Your task to perform on an android device: find photos in the google photos app Image 0: 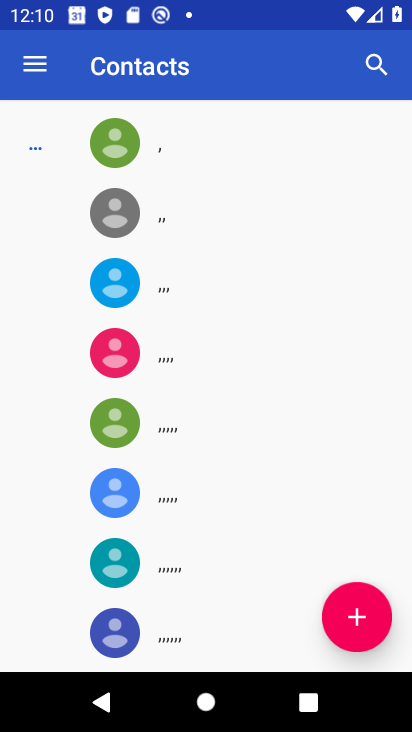
Step 0: press home button
Your task to perform on an android device: find photos in the google photos app Image 1: 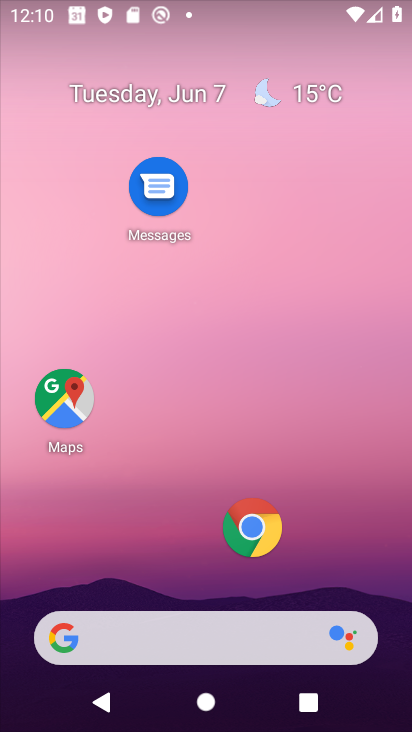
Step 1: drag from (205, 616) to (207, 227)
Your task to perform on an android device: find photos in the google photos app Image 2: 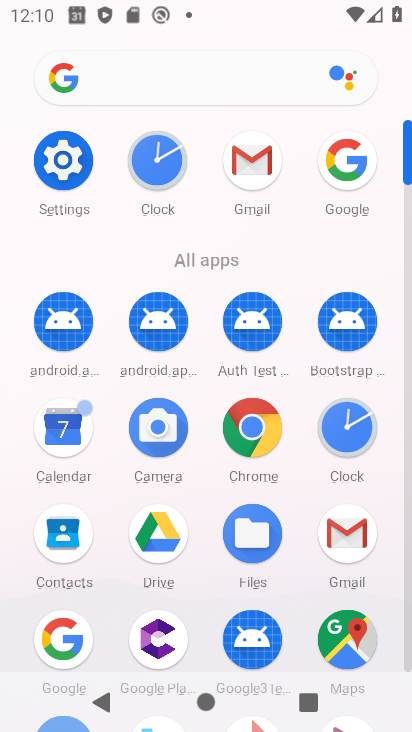
Step 2: drag from (123, 637) to (133, 190)
Your task to perform on an android device: find photos in the google photos app Image 3: 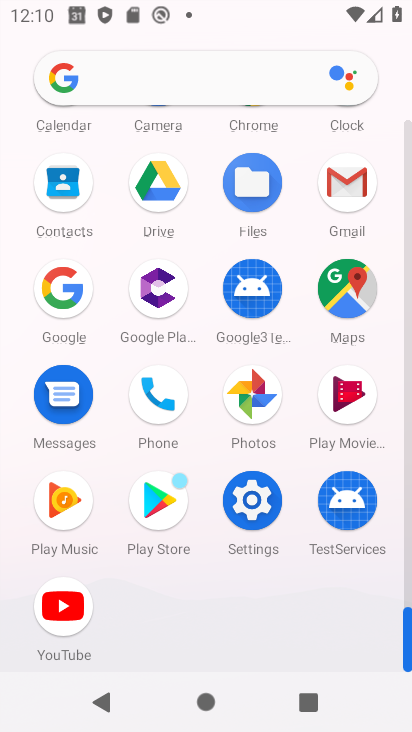
Step 3: click (255, 399)
Your task to perform on an android device: find photos in the google photos app Image 4: 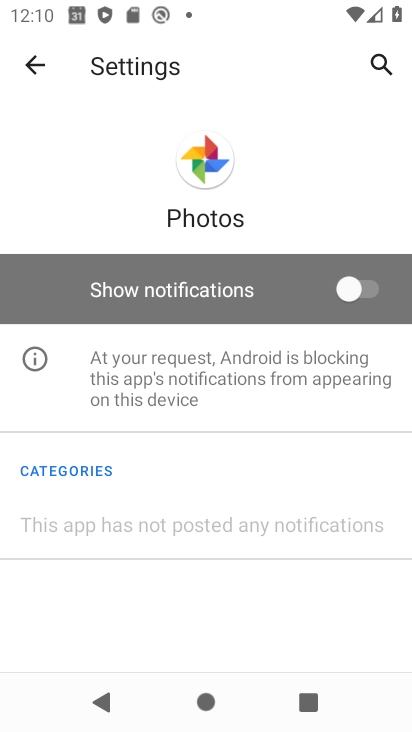
Step 4: click (44, 56)
Your task to perform on an android device: find photos in the google photos app Image 5: 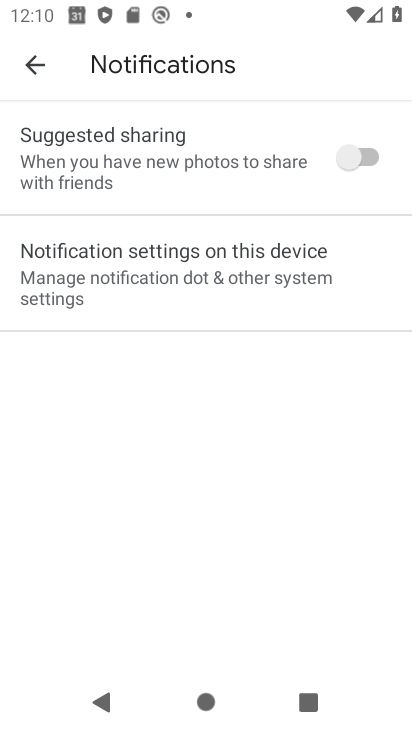
Step 5: click (42, 67)
Your task to perform on an android device: find photos in the google photos app Image 6: 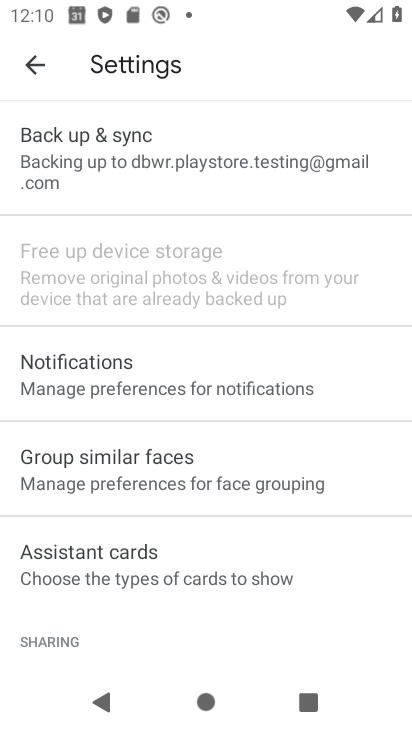
Step 6: click (30, 65)
Your task to perform on an android device: find photos in the google photos app Image 7: 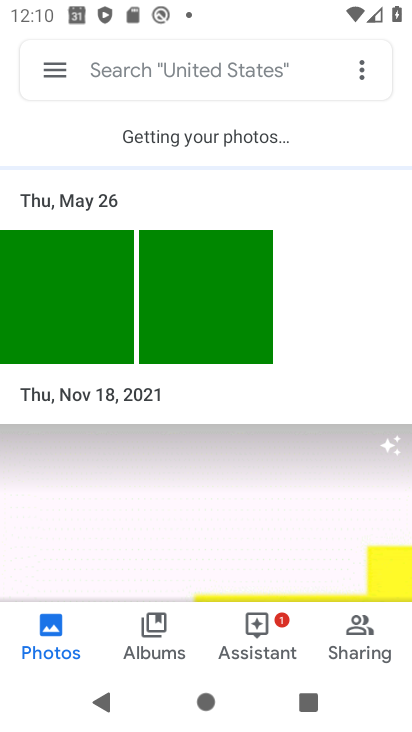
Step 7: click (152, 79)
Your task to perform on an android device: find photos in the google photos app Image 8: 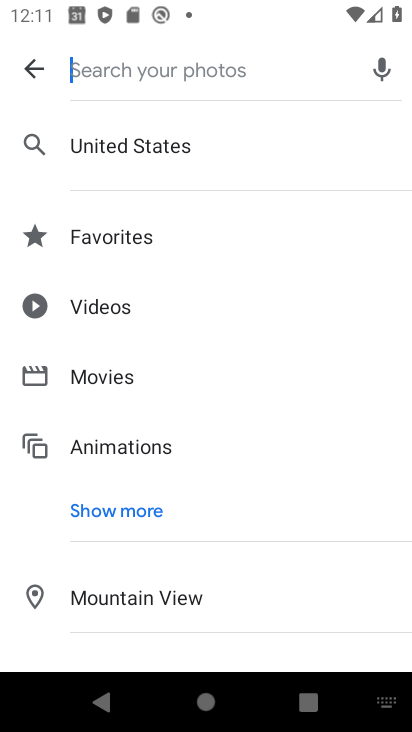
Step 8: click (130, 143)
Your task to perform on an android device: find photos in the google photos app Image 9: 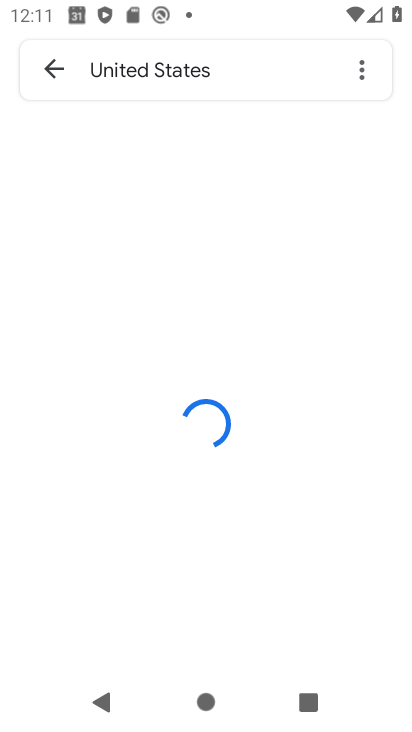
Step 9: task complete